Your task to perform on an android device: Toggle the flashlight Image 0: 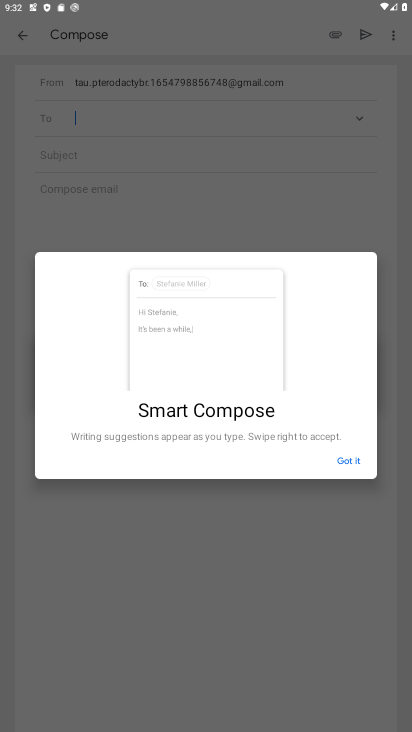
Step 0: press home button
Your task to perform on an android device: Toggle the flashlight Image 1: 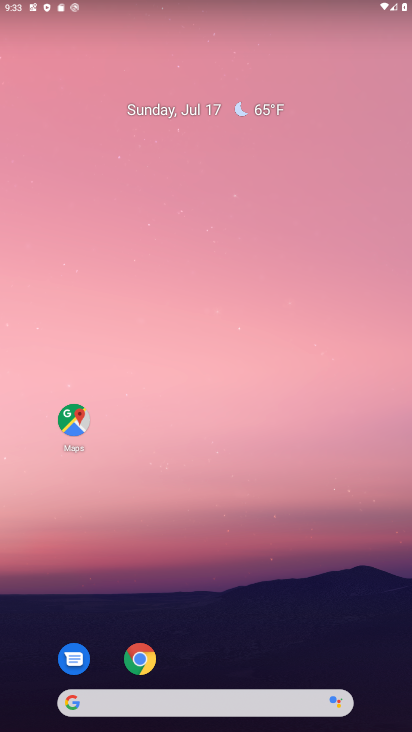
Step 1: drag from (263, 632) to (350, 193)
Your task to perform on an android device: Toggle the flashlight Image 2: 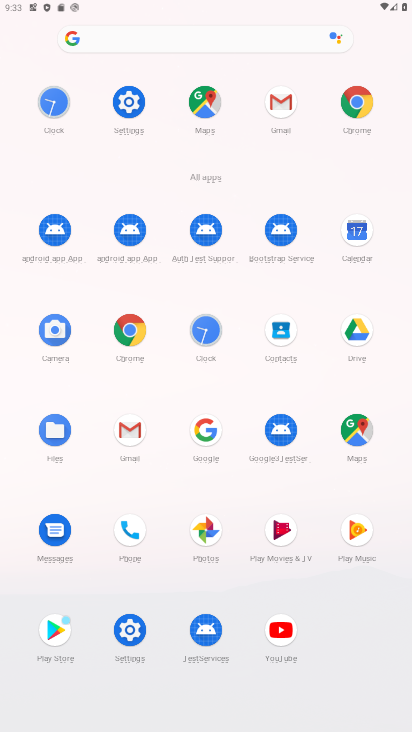
Step 2: click (132, 121)
Your task to perform on an android device: Toggle the flashlight Image 3: 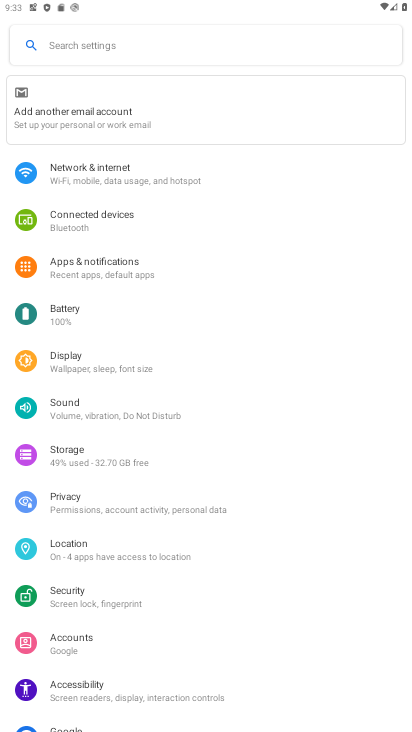
Step 3: task complete